Your task to perform on an android device: read, delete, or share a saved page in the chrome app Image 0: 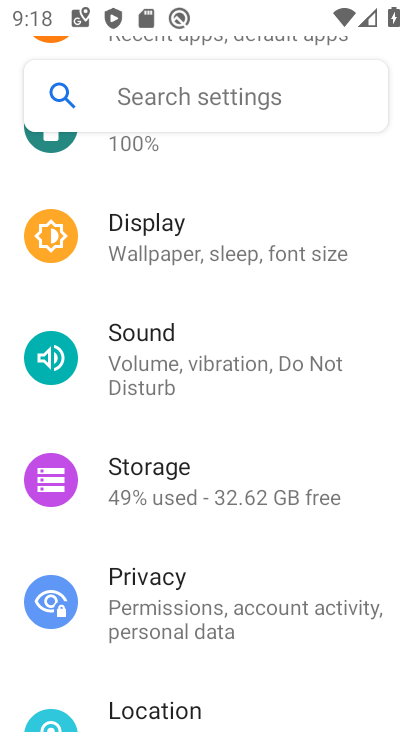
Step 0: press back button
Your task to perform on an android device: read, delete, or share a saved page in the chrome app Image 1: 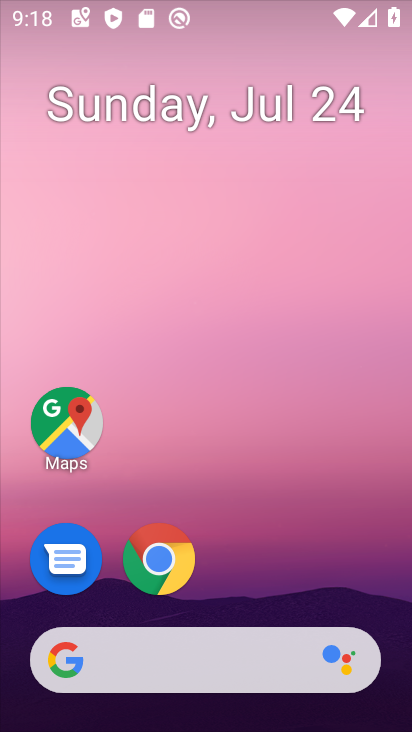
Step 1: click (151, 547)
Your task to perform on an android device: read, delete, or share a saved page in the chrome app Image 2: 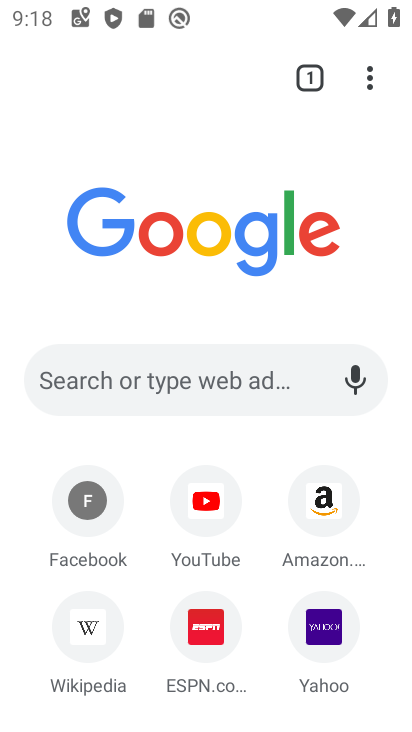
Step 2: drag from (367, 74) to (125, 508)
Your task to perform on an android device: read, delete, or share a saved page in the chrome app Image 3: 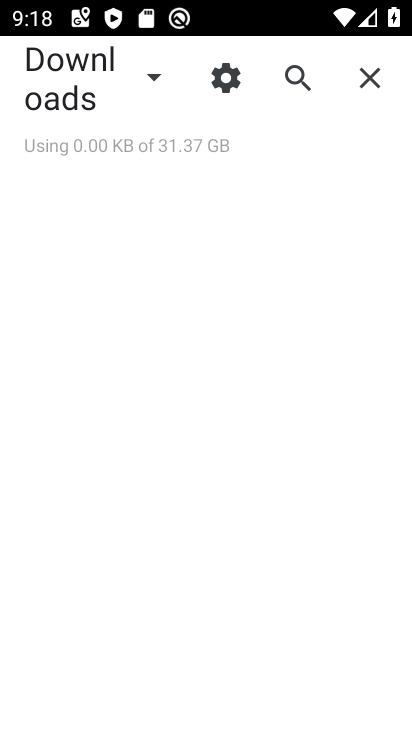
Step 3: click (146, 78)
Your task to perform on an android device: read, delete, or share a saved page in the chrome app Image 4: 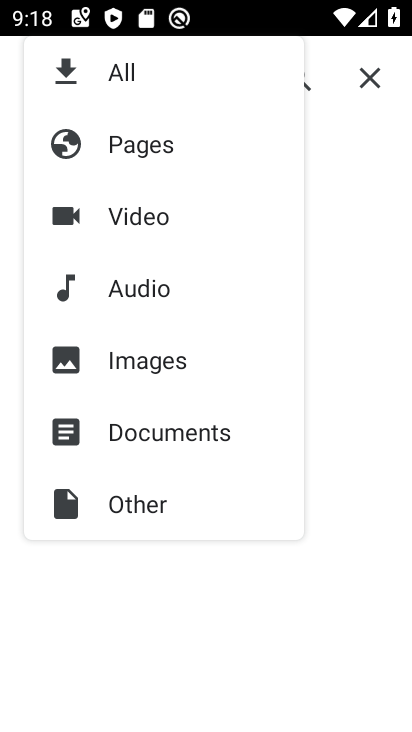
Step 4: click (146, 144)
Your task to perform on an android device: read, delete, or share a saved page in the chrome app Image 5: 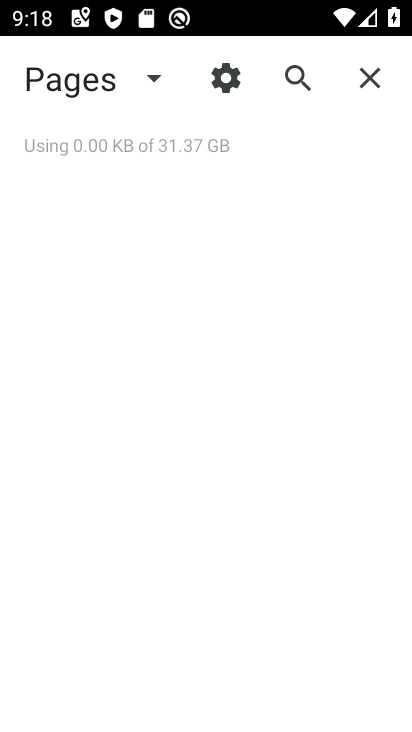
Step 5: task complete